Your task to perform on an android device: turn smart compose on in the gmail app Image 0: 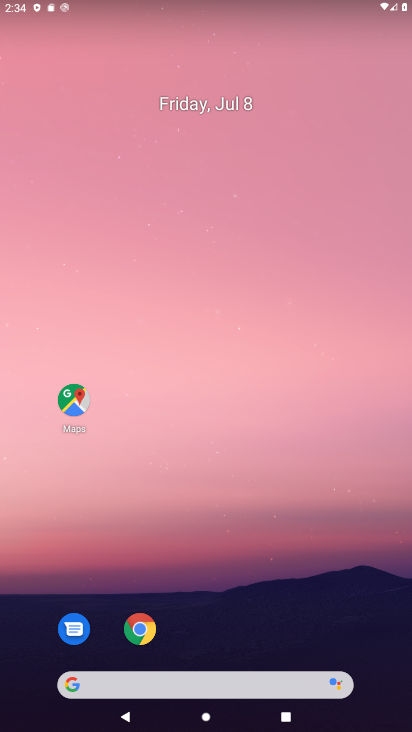
Step 0: drag from (105, 443) to (293, 8)
Your task to perform on an android device: turn smart compose on in the gmail app Image 1: 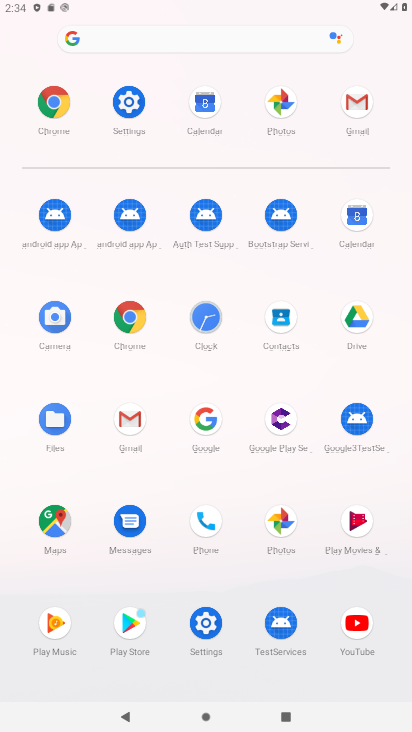
Step 1: click (131, 428)
Your task to perform on an android device: turn smart compose on in the gmail app Image 2: 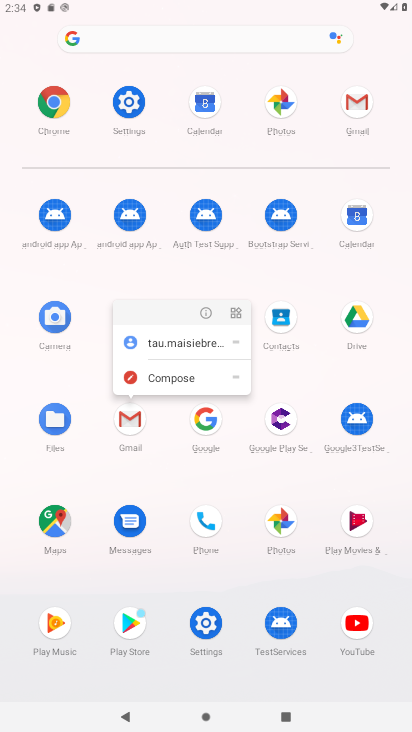
Step 2: click (130, 419)
Your task to perform on an android device: turn smart compose on in the gmail app Image 3: 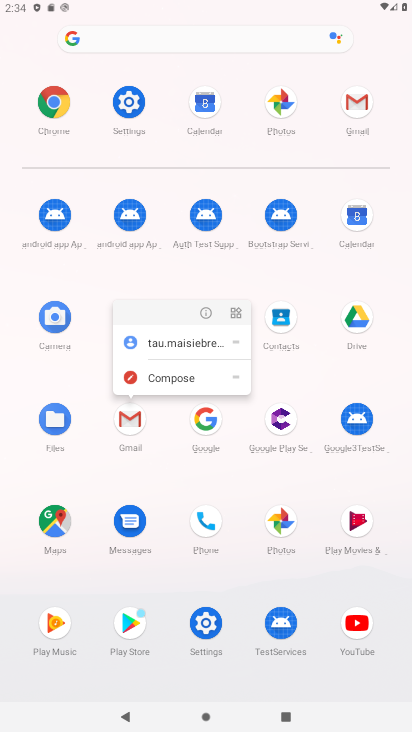
Step 3: task complete